Your task to perform on an android device: turn on the 12-hour format for clock Image 0: 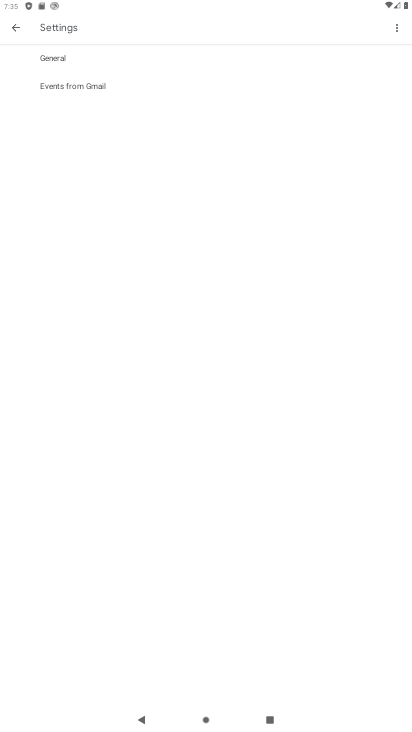
Step 0: press home button
Your task to perform on an android device: turn on the 12-hour format for clock Image 1: 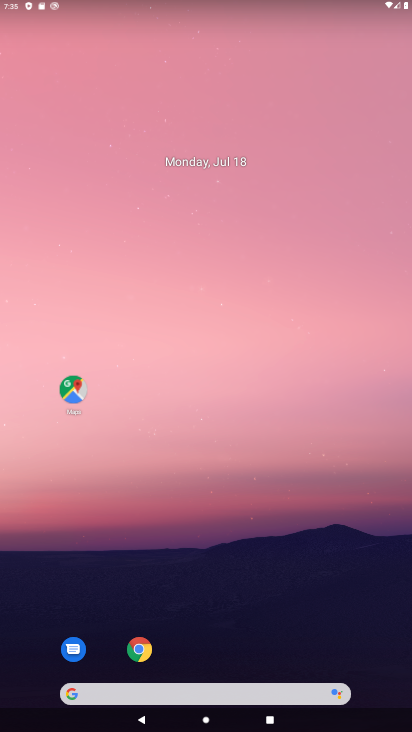
Step 1: drag from (187, 723) to (377, 44)
Your task to perform on an android device: turn on the 12-hour format for clock Image 2: 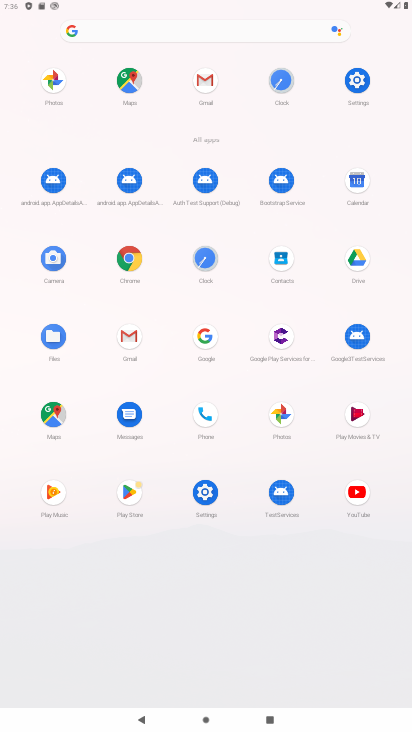
Step 2: click (290, 87)
Your task to perform on an android device: turn on the 12-hour format for clock Image 3: 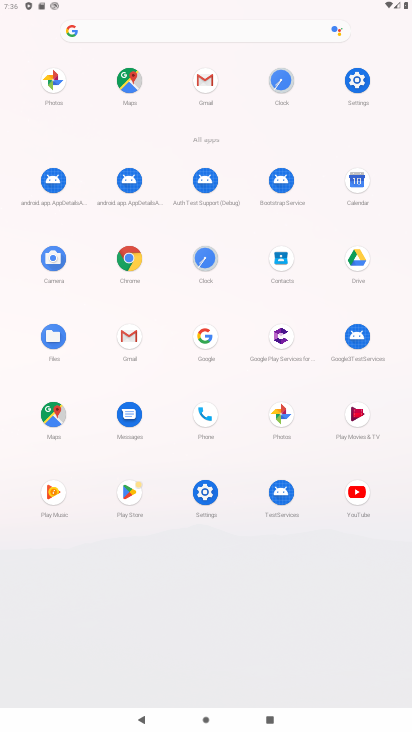
Step 3: click (290, 87)
Your task to perform on an android device: turn on the 12-hour format for clock Image 4: 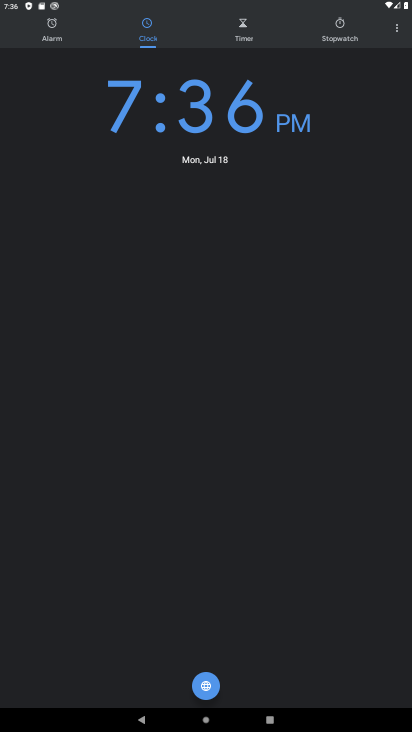
Step 4: click (400, 30)
Your task to perform on an android device: turn on the 12-hour format for clock Image 5: 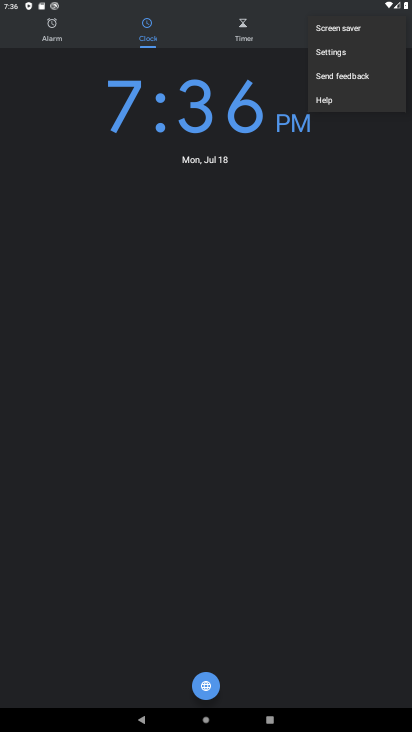
Step 5: click (350, 62)
Your task to perform on an android device: turn on the 12-hour format for clock Image 6: 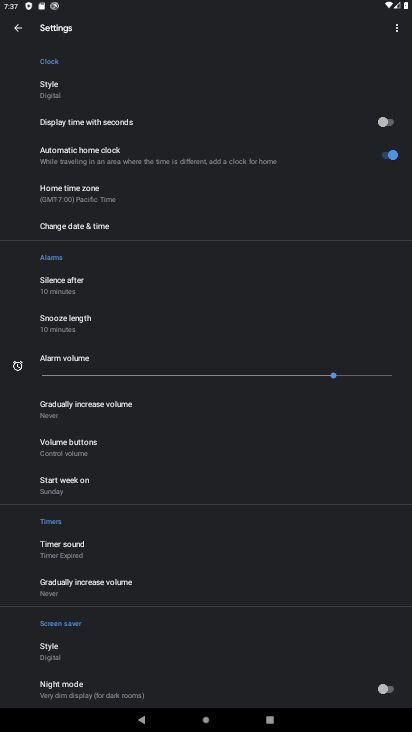
Step 6: click (108, 232)
Your task to perform on an android device: turn on the 12-hour format for clock Image 7: 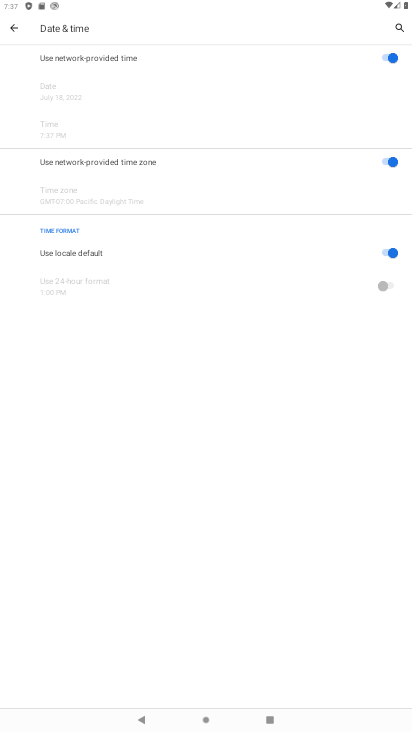
Step 7: task complete